Your task to perform on an android device: Go to Yahoo.com Image 0: 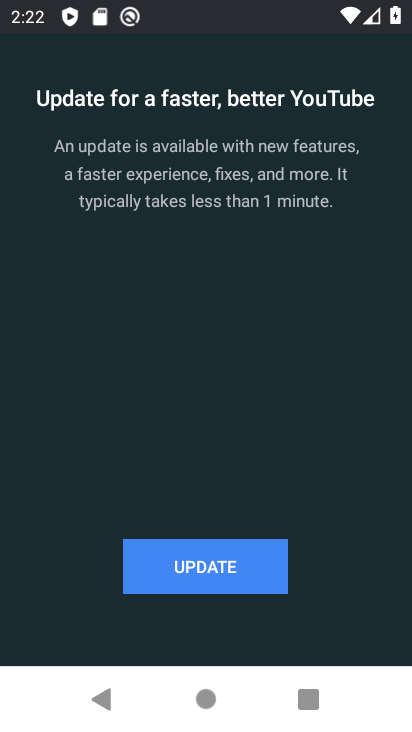
Step 0: press home button
Your task to perform on an android device: Go to Yahoo.com Image 1: 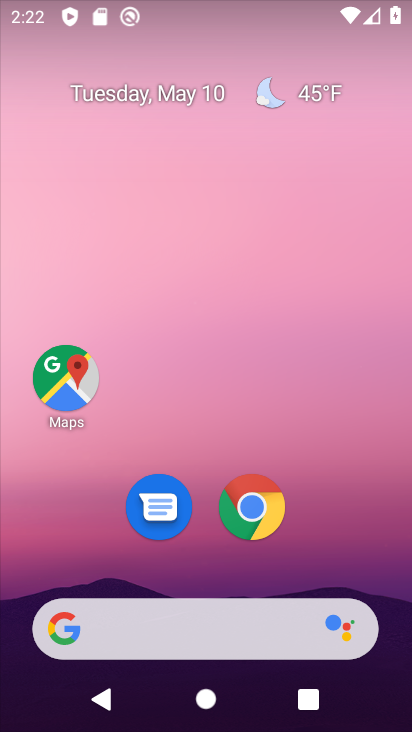
Step 1: click (251, 505)
Your task to perform on an android device: Go to Yahoo.com Image 2: 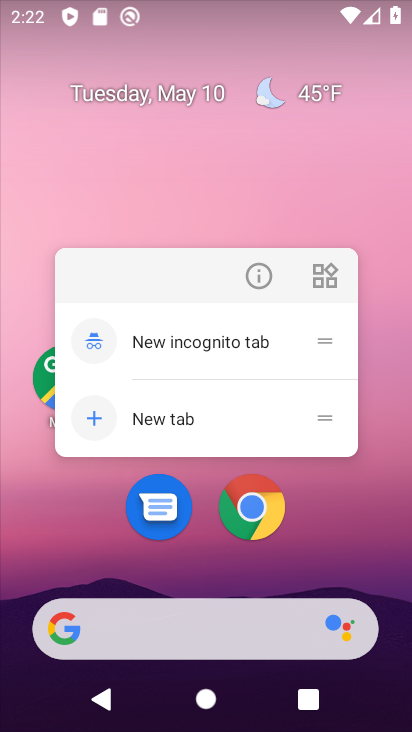
Step 2: click (249, 510)
Your task to perform on an android device: Go to Yahoo.com Image 3: 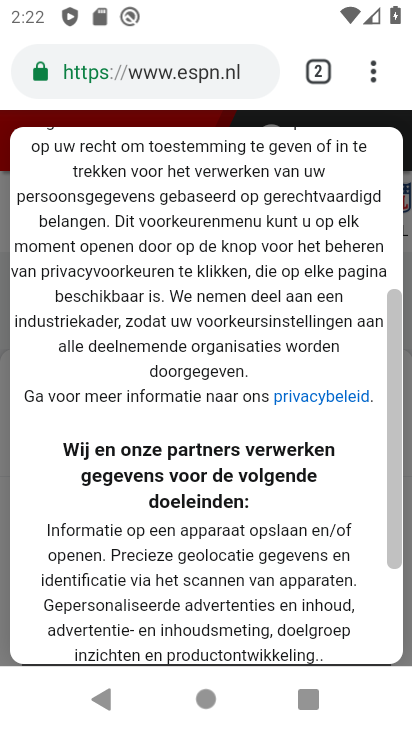
Step 3: click (327, 70)
Your task to perform on an android device: Go to Yahoo.com Image 4: 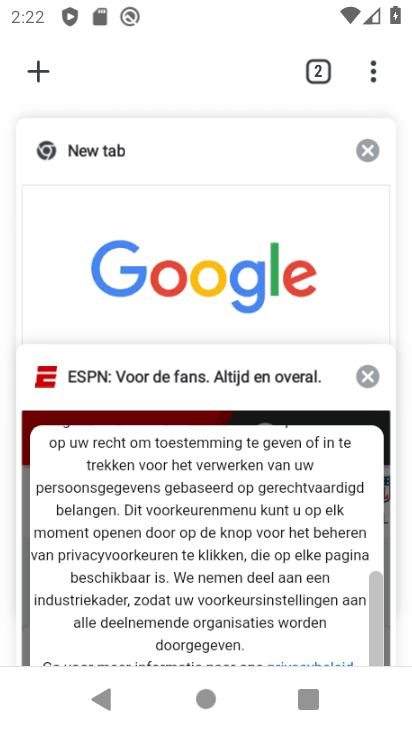
Step 4: click (40, 73)
Your task to perform on an android device: Go to Yahoo.com Image 5: 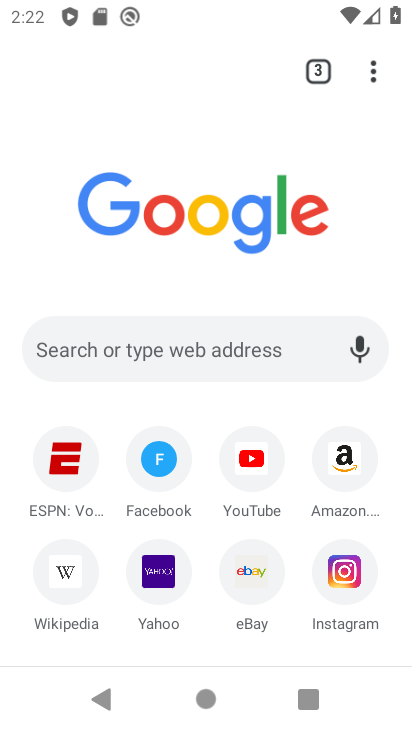
Step 5: click (164, 562)
Your task to perform on an android device: Go to Yahoo.com Image 6: 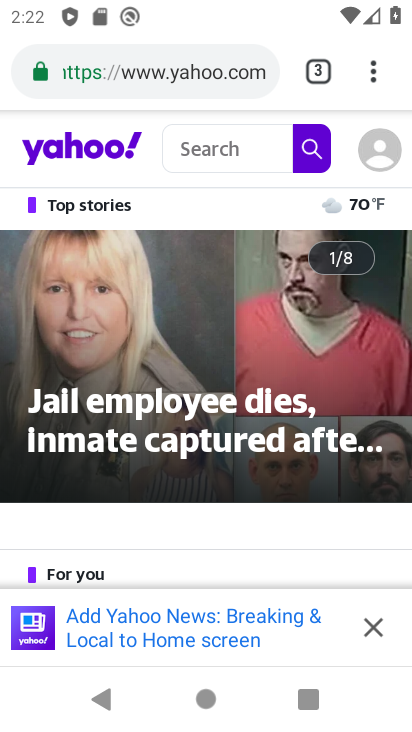
Step 6: task complete